Your task to perform on an android device: toggle data saver in the chrome app Image 0: 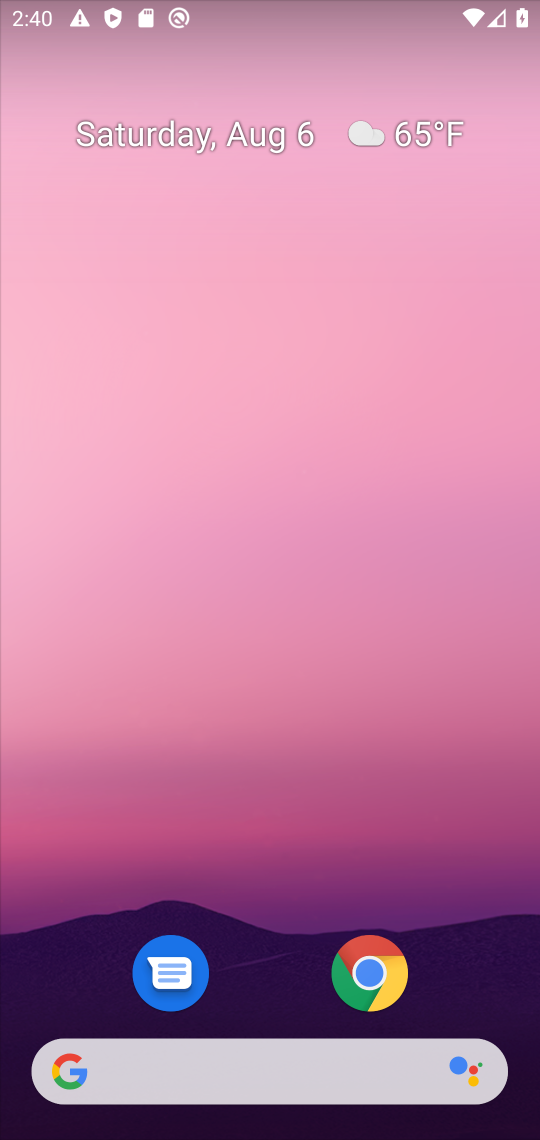
Step 0: click (368, 972)
Your task to perform on an android device: toggle data saver in the chrome app Image 1: 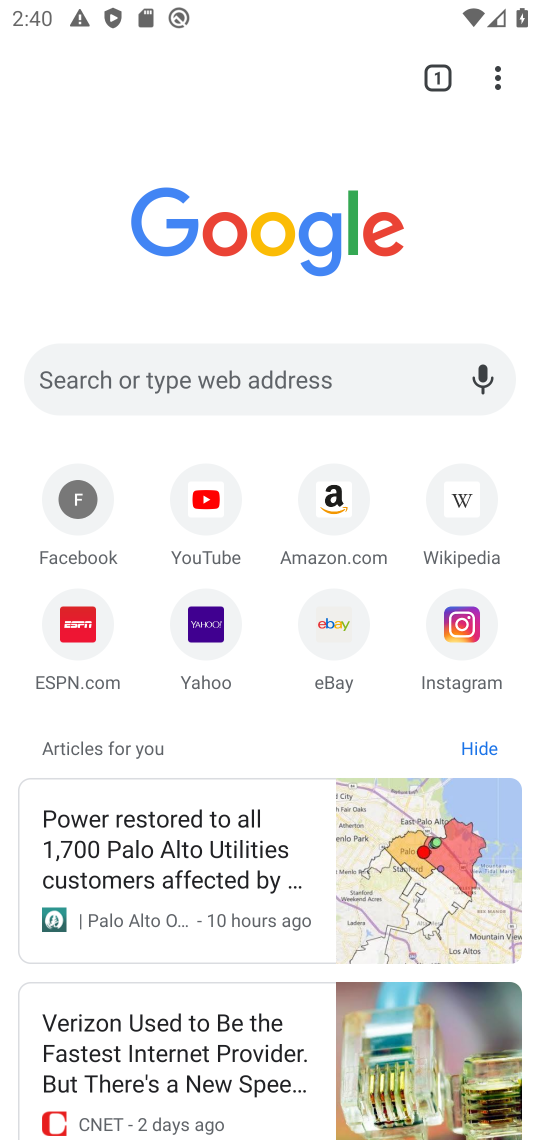
Step 1: click (499, 89)
Your task to perform on an android device: toggle data saver in the chrome app Image 2: 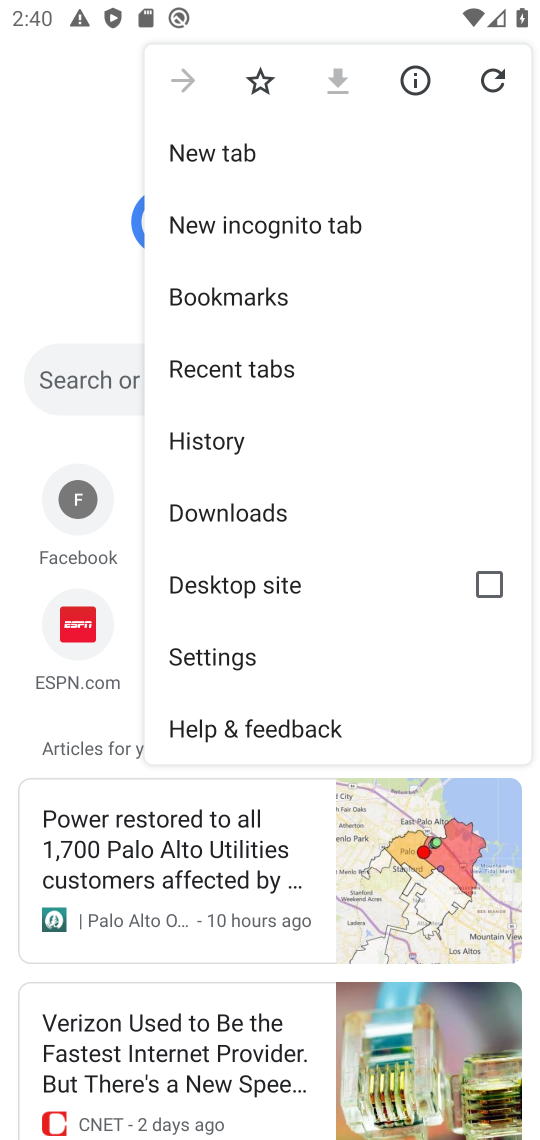
Step 2: click (179, 642)
Your task to perform on an android device: toggle data saver in the chrome app Image 3: 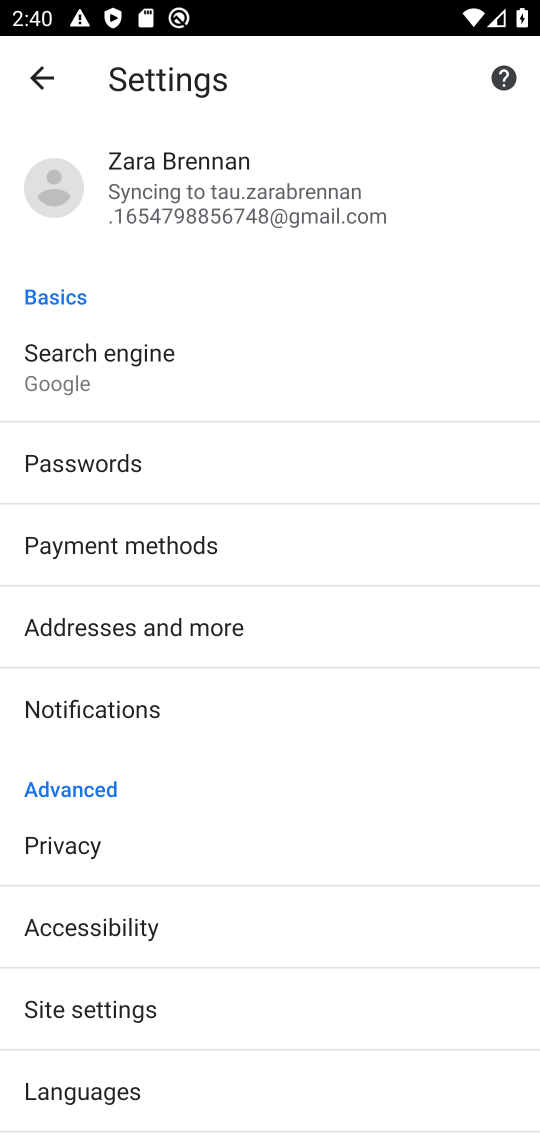
Step 3: drag from (108, 1025) to (108, 564)
Your task to perform on an android device: toggle data saver in the chrome app Image 4: 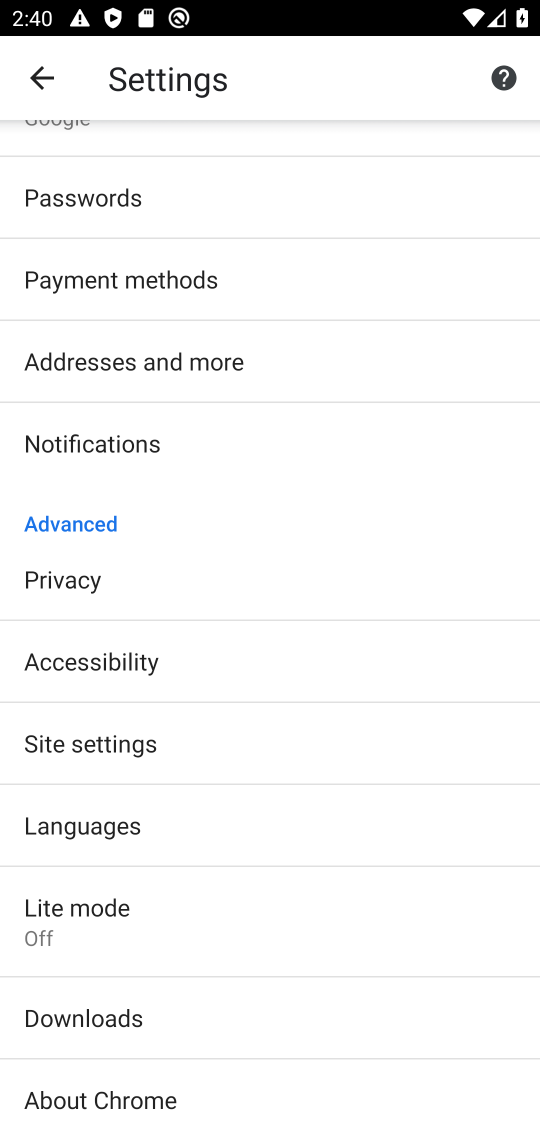
Step 4: click (118, 905)
Your task to perform on an android device: toggle data saver in the chrome app Image 5: 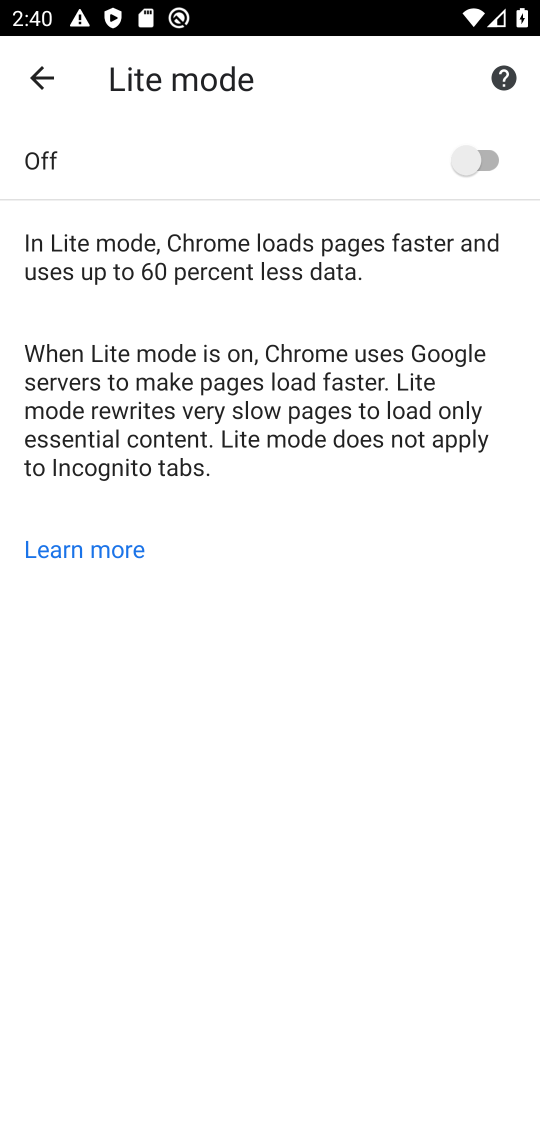
Step 5: click (432, 180)
Your task to perform on an android device: toggle data saver in the chrome app Image 6: 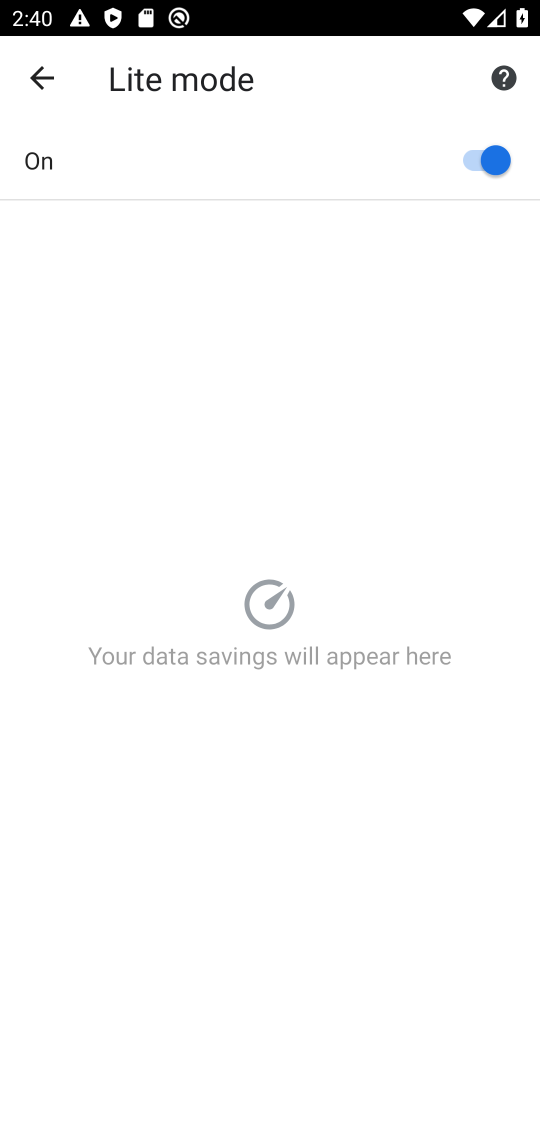
Step 6: task complete